Your task to perform on an android device: Go to notification settings Image 0: 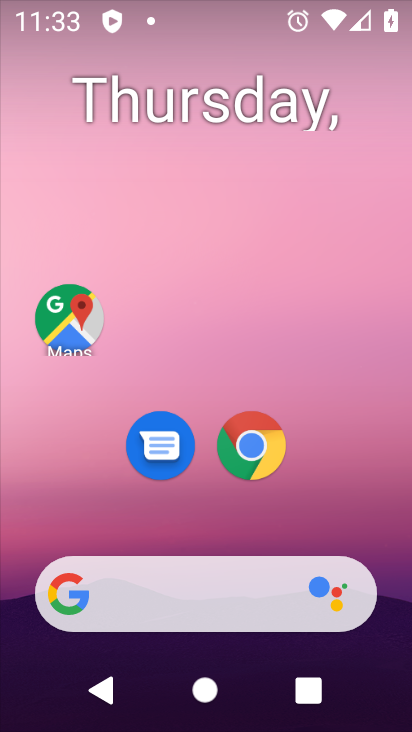
Step 0: drag from (378, 345) to (399, 52)
Your task to perform on an android device: Go to notification settings Image 1: 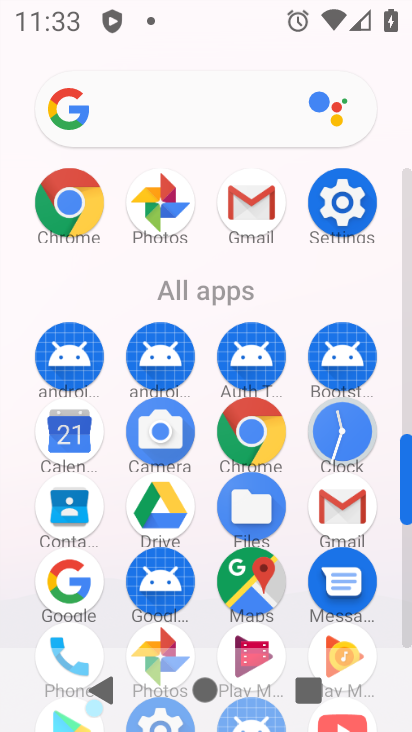
Step 1: click (332, 194)
Your task to perform on an android device: Go to notification settings Image 2: 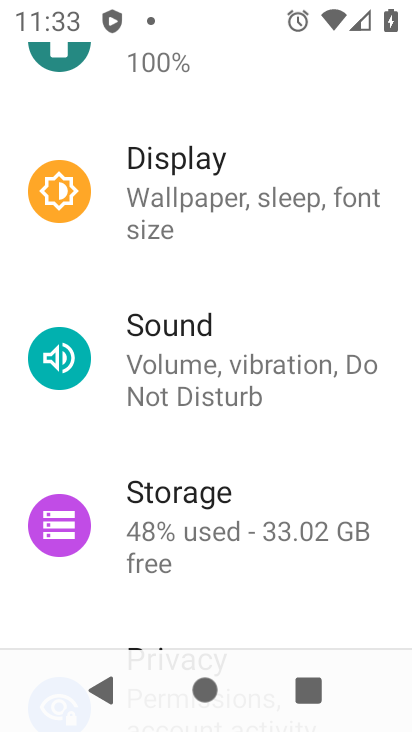
Step 2: drag from (260, 255) to (226, 560)
Your task to perform on an android device: Go to notification settings Image 3: 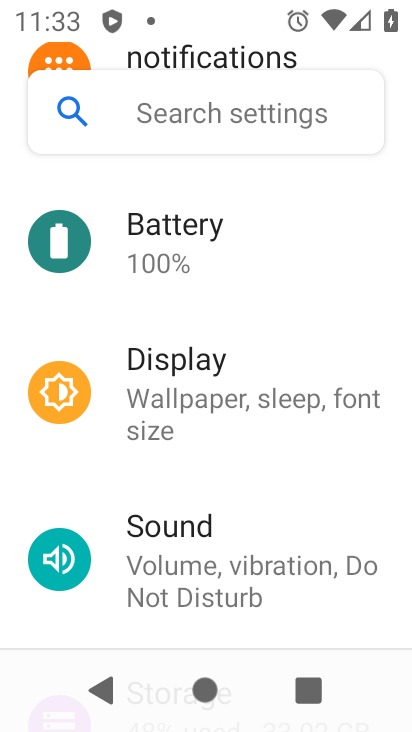
Step 3: drag from (206, 254) to (238, 503)
Your task to perform on an android device: Go to notification settings Image 4: 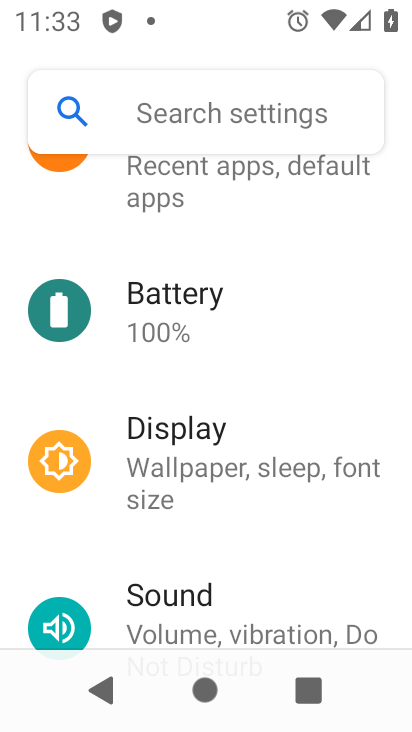
Step 4: drag from (163, 263) to (253, 578)
Your task to perform on an android device: Go to notification settings Image 5: 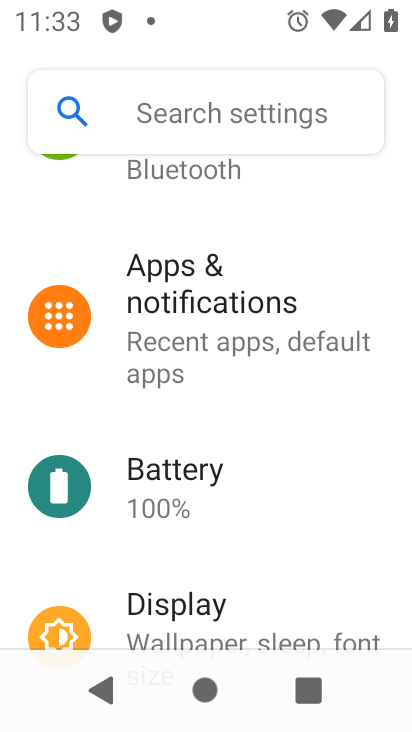
Step 5: click (237, 314)
Your task to perform on an android device: Go to notification settings Image 6: 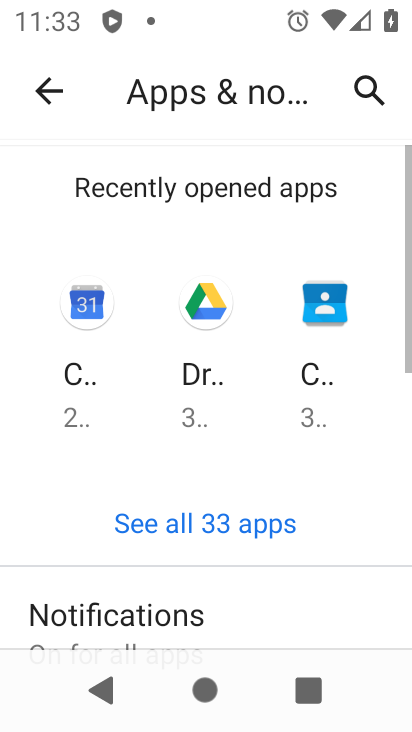
Step 6: drag from (271, 532) to (374, 249)
Your task to perform on an android device: Go to notification settings Image 7: 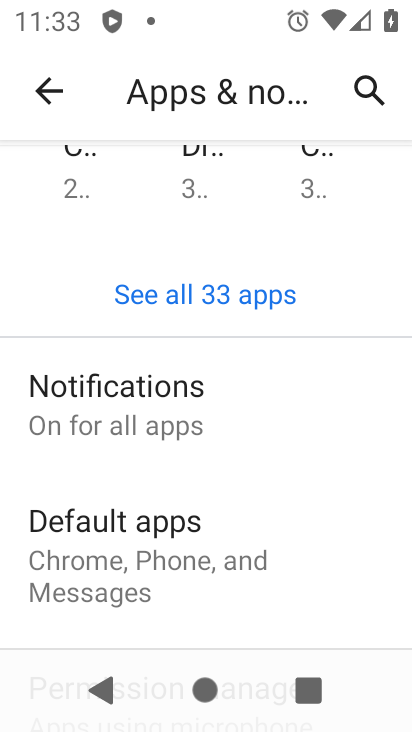
Step 7: click (166, 390)
Your task to perform on an android device: Go to notification settings Image 8: 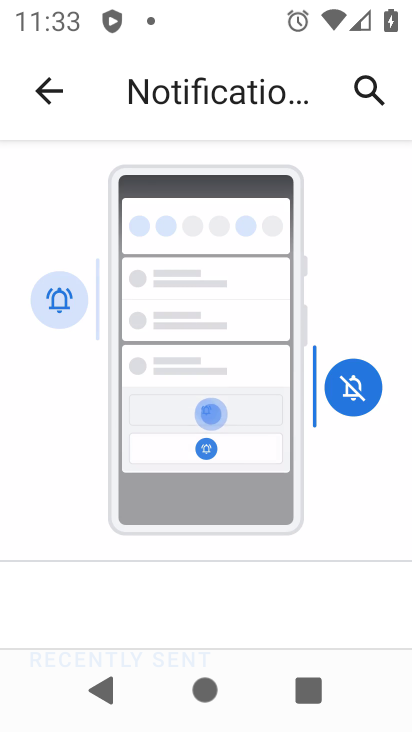
Step 8: task complete